Your task to perform on an android device: Show me popular games on the Play Store Image 0: 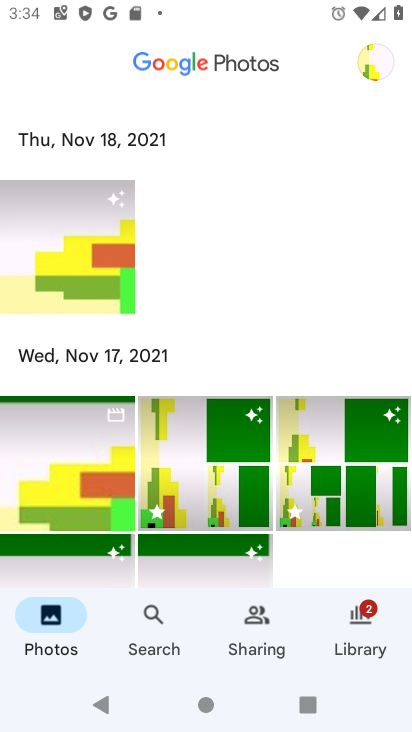
Step 0: press home button
Your task to perform on an android device: Show me popular games on the Play Store Image 1: 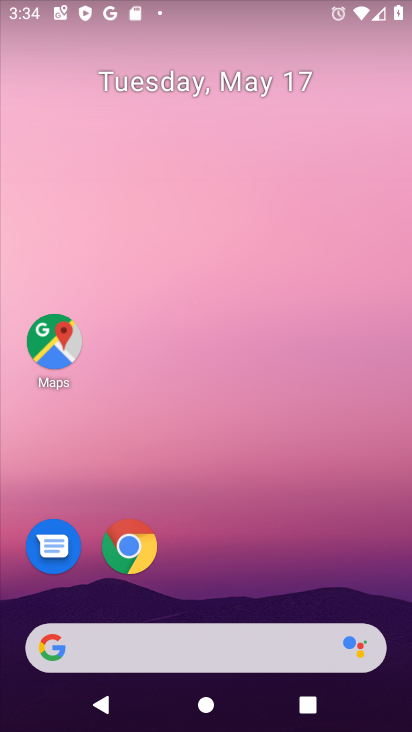
Step 1: drag from (409, 653) to (395, 126)
Your task to perform on an android device: Show me popular games on the Play Store Image 2: 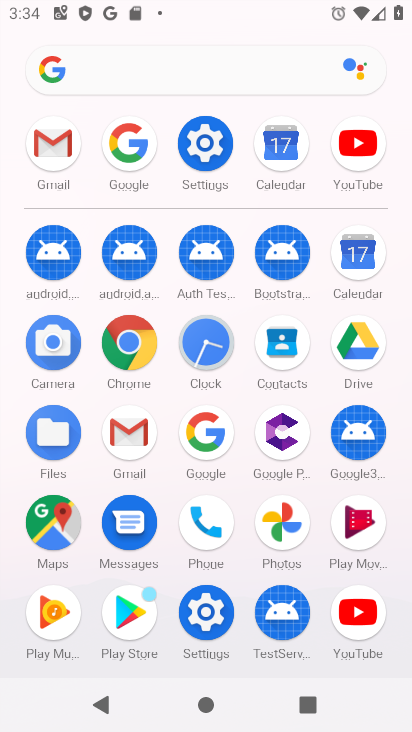
Step 2: click (126, 598)
Your task to perform on an android device: Show me popular games on the Play Store Image 3: 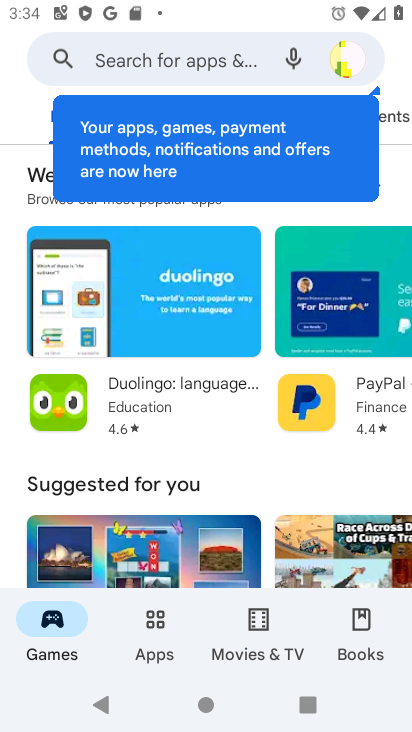
Step 3: click (204, 58)
Your task to perform on an android device: Show me popular games on the Play Store Image 4: 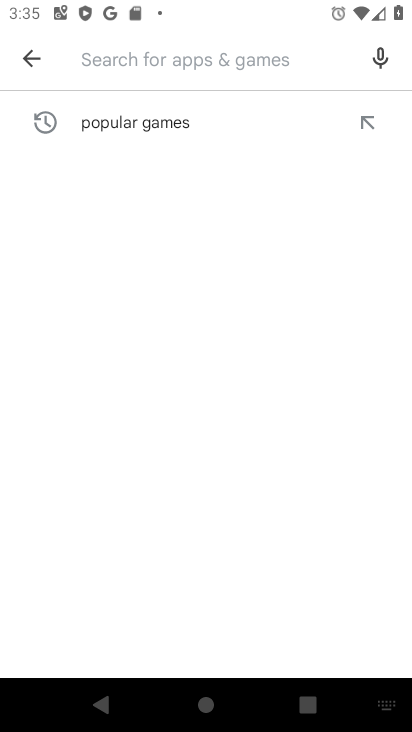
Step 4: type "popular games on the Play Store"
Your task to perform on an android device: Show me popular games on the Play Store Image 5: 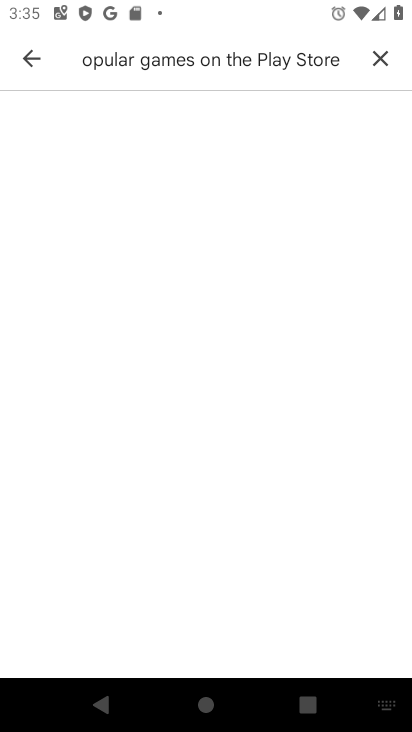
Step 5: click (340, 57)
Your task to perform on an android device: Show me popular games on the Play Store Image 6: 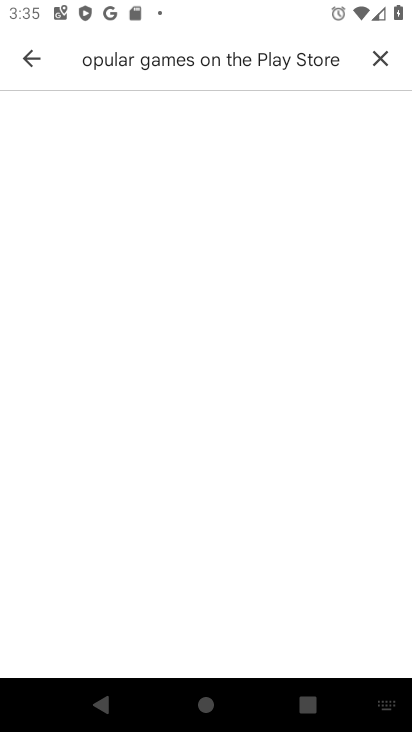
Step 6: click (379, 59)
Your task to perform on an android device: Show me popular games on the Play Store Image 7: 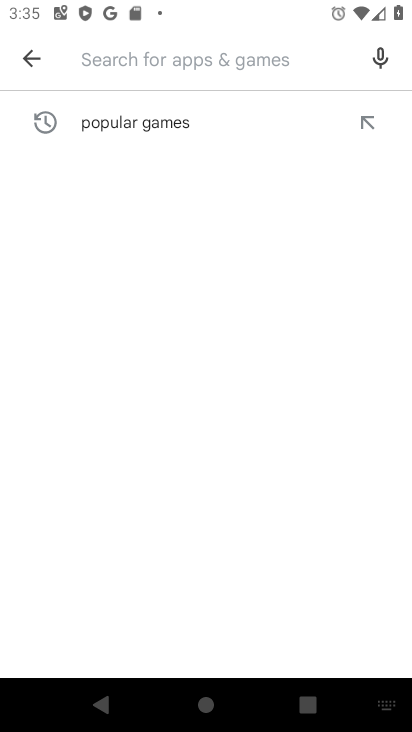
Step 7: click (135, 116)
Your task to perform on an android device: Show me popular games on the Play Store Image 8: 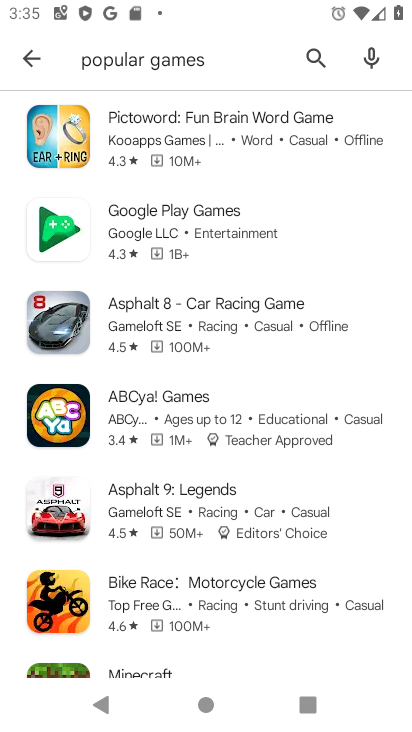
Step 8: type "popular games"
Your task to perform on an android device: Show me popular games on the Play Store Image 9: 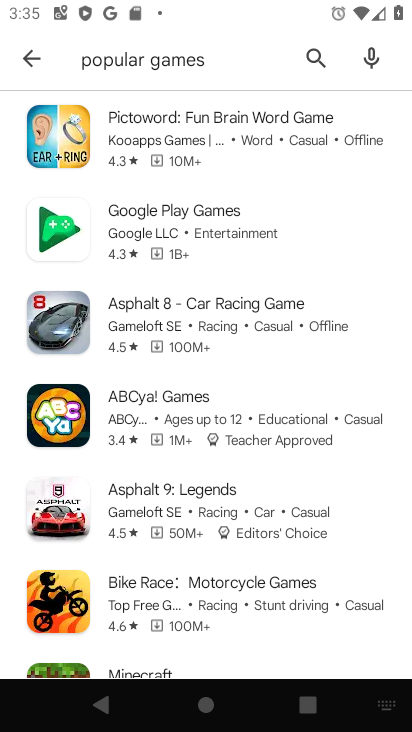
Step 9: task complete